Your task to perform on an android device: uninstall "Spotify" Image 0: 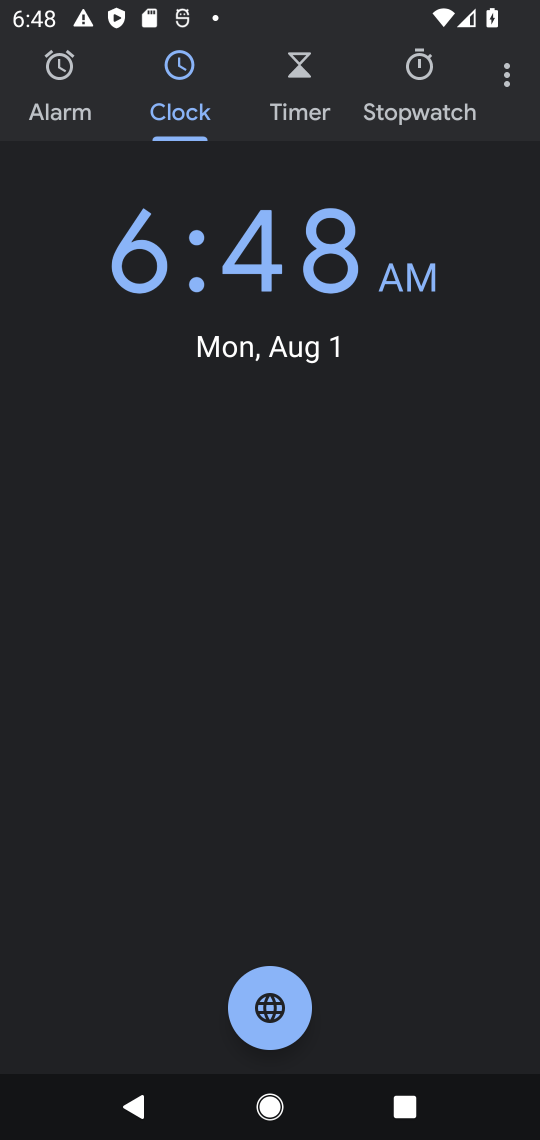
Step 0: press back button
Your task to perform on an android device: uninstall "Spotify" Image 1: 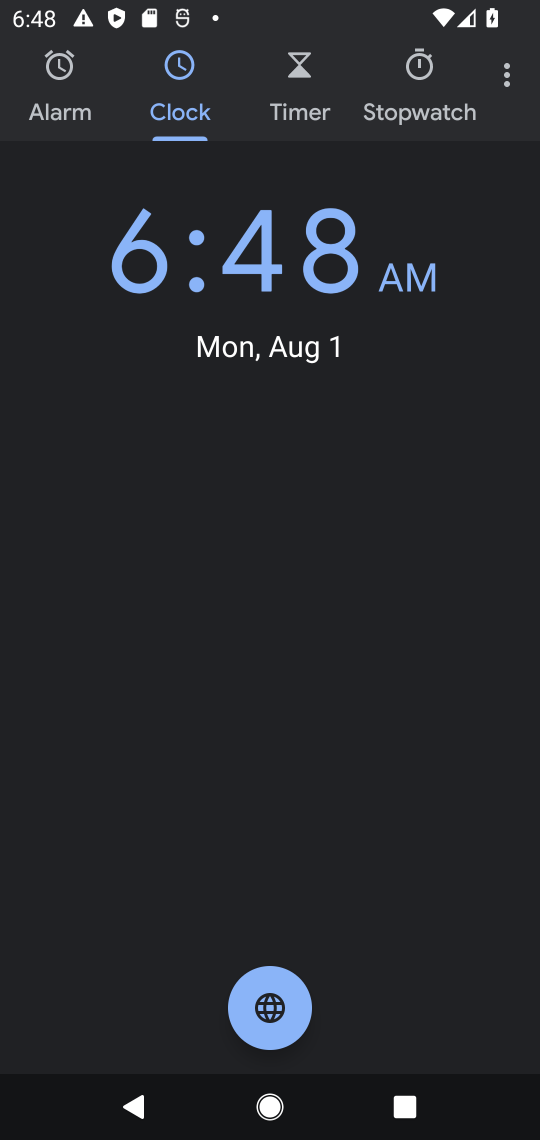
Step 1: press back button
Your task to perform on an android device: uninstall "Spotify" Image 2: 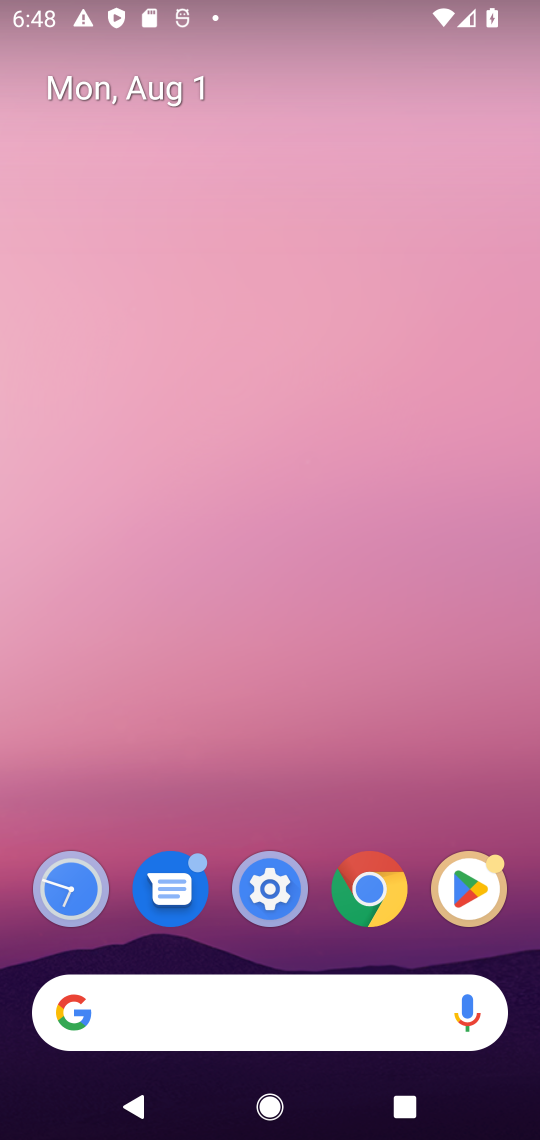
Step 2: press back button
Your task to perform on an android device: uninstall "Spotify" Image 3: 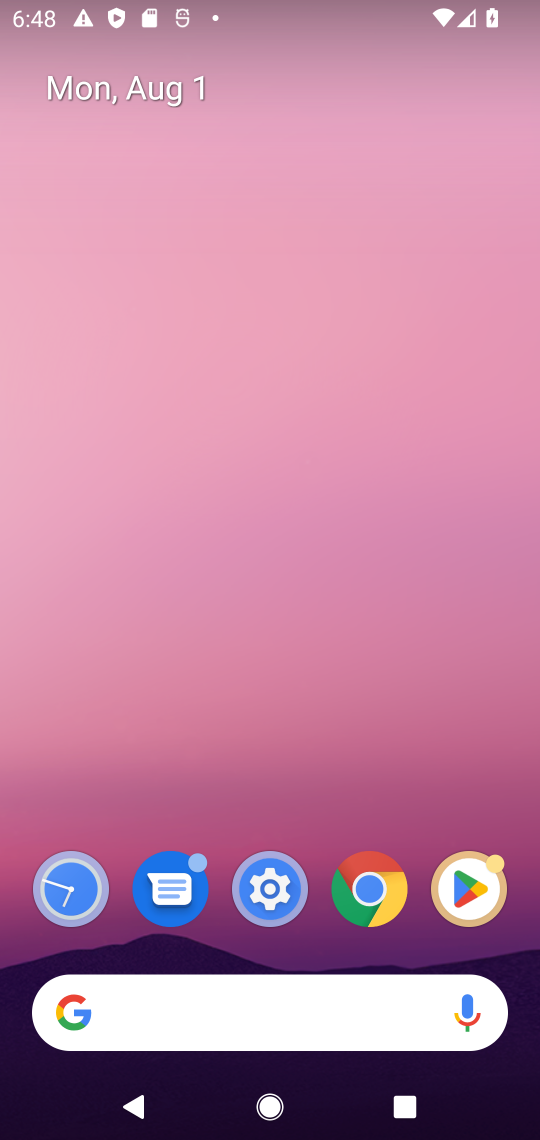
Step 3: drag from (242, 38) to (217, 277)
Your task to perform on an android device: uninstall "Spotify" Image 4: 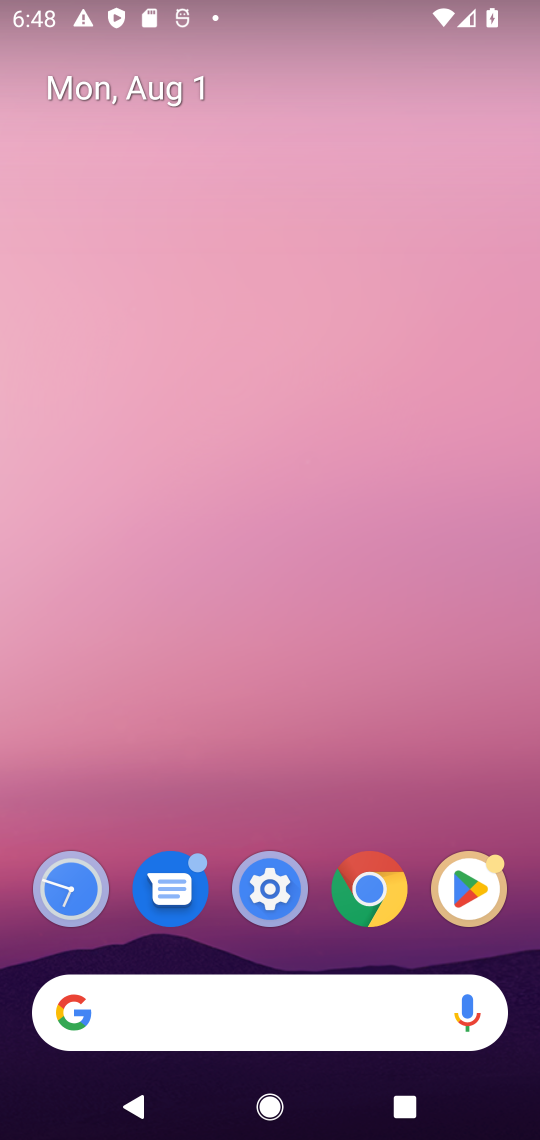
Step 4: drag from (336, 865) to (195, 127)
Your task to perform on an android device: uninstall "Spotify" Image 5: 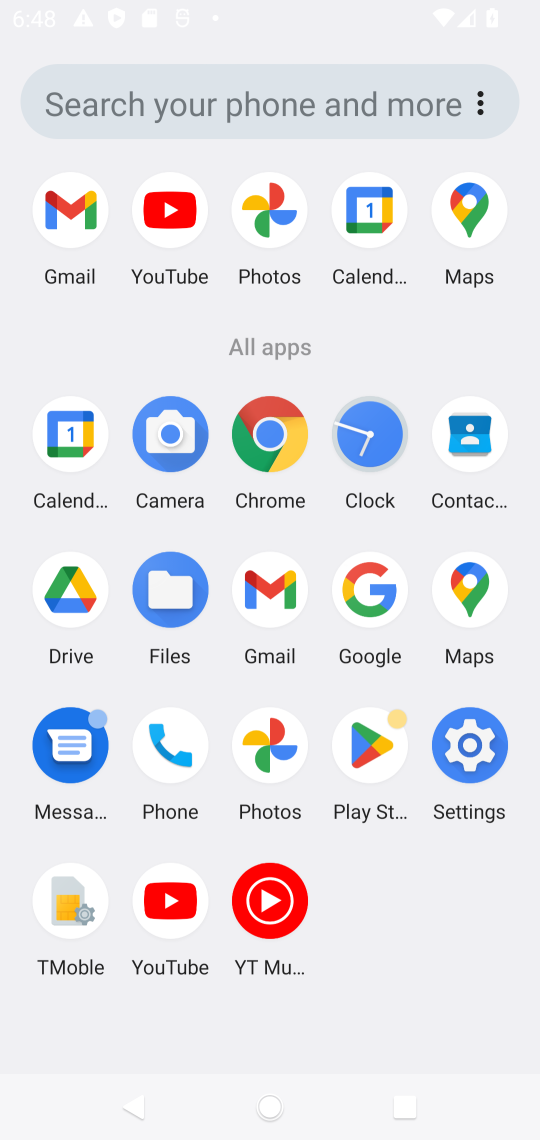
Step 5: drag from (241, 702) to (158, 0)
Your task to perform on an android device: uninstall "Spotify" Image 6: 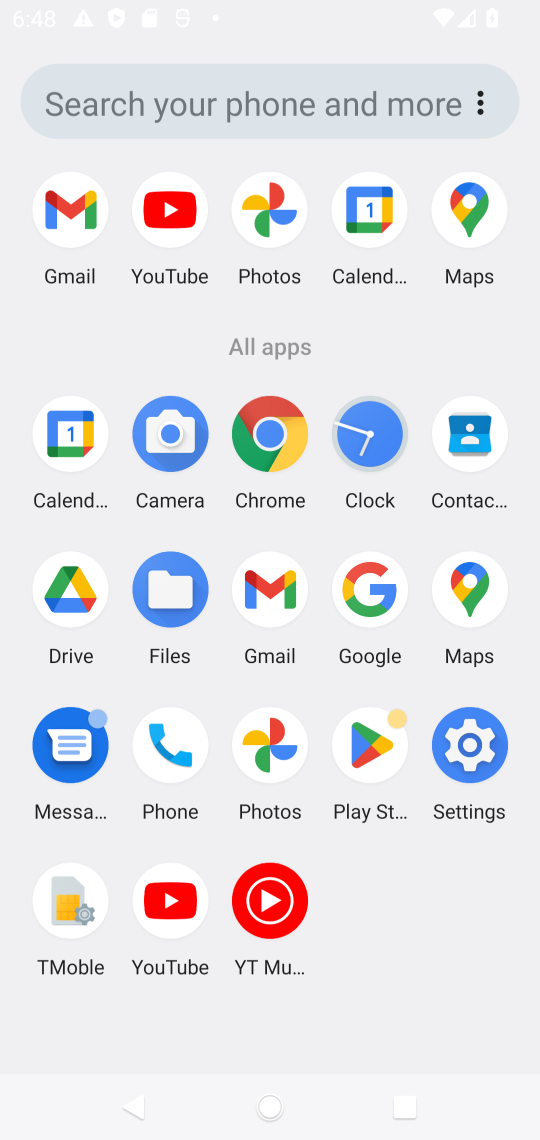
Step 6: drag from (281, 843) to (186, 88)
Your task to perform on an android device: uninstall "Spotify" Image 7: 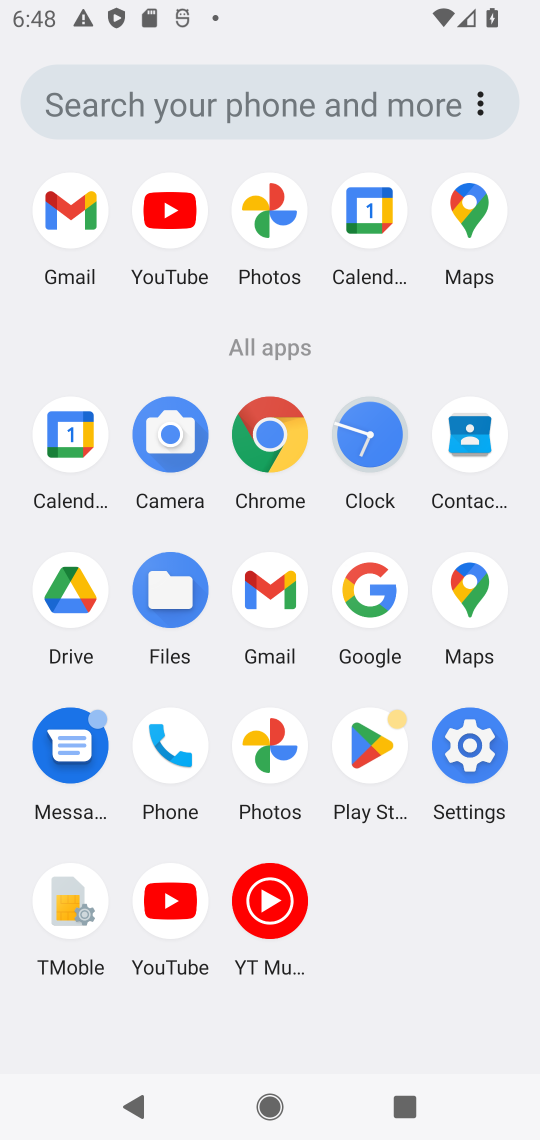
Step 7: click (358, 755)
Your task to perform on an android device: uninstall "Spotify" Image 8: 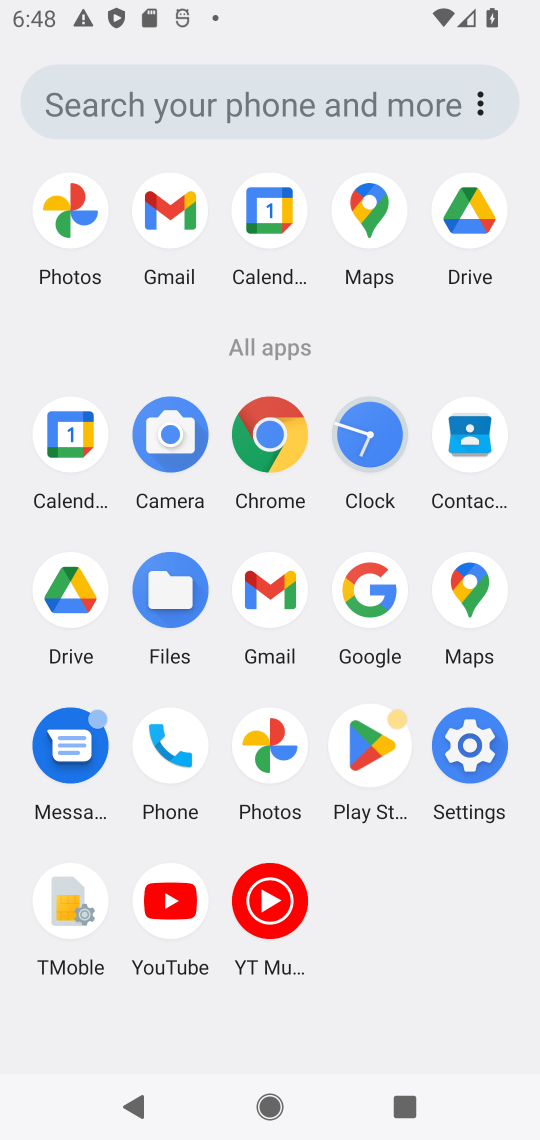
Step 8: click (358, 751)
Your task to perform on an android device: uninstall "Spotify" Image 9: 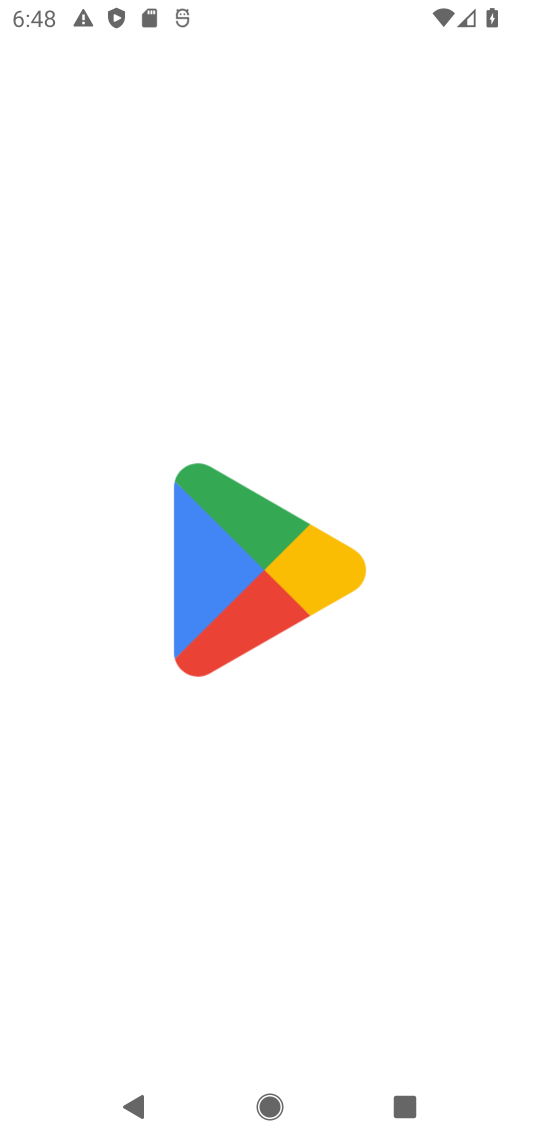
Step 9: click (368, 741)
Your task to perform on an android device: uninstall "Spotify" Image 10: 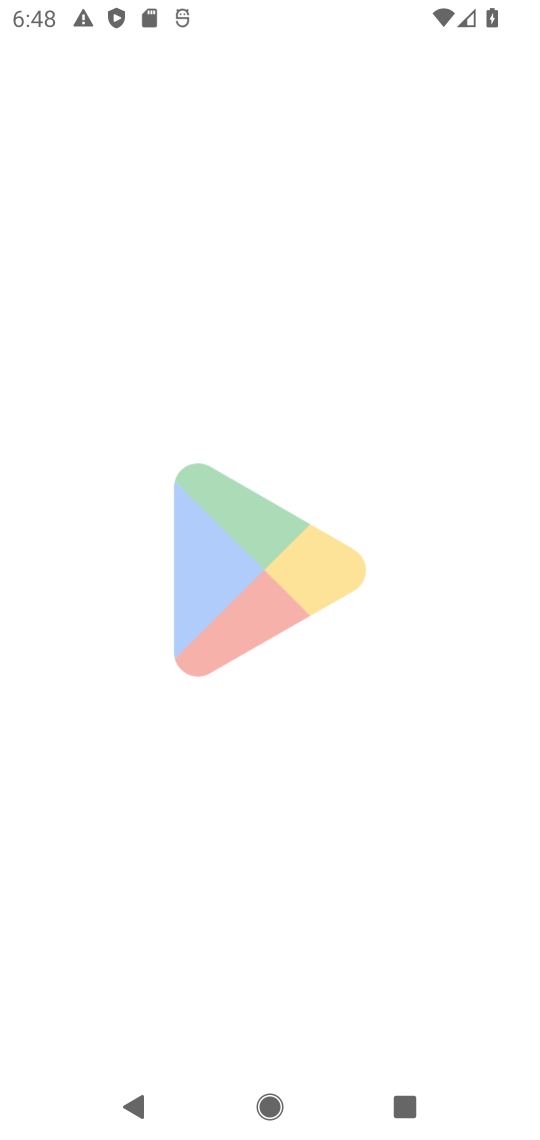
Step 10: click (369, 742)
Your task to perform on an android device: uninstall "Spotify" Image 11: 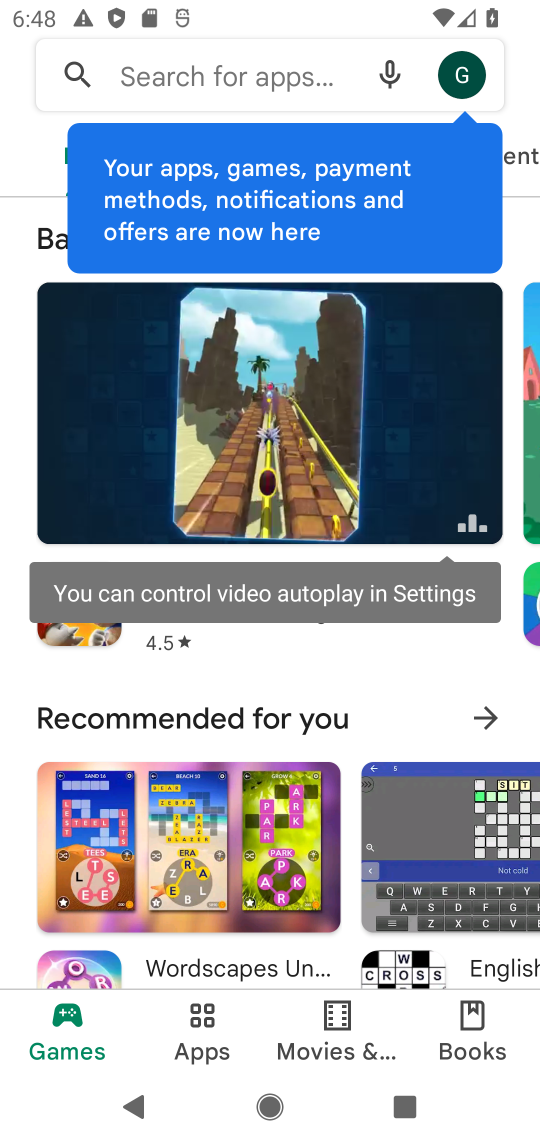
Step 11: click (167, 74)
Your task to perform on an android device: uninstall "Spotify" Image 12: 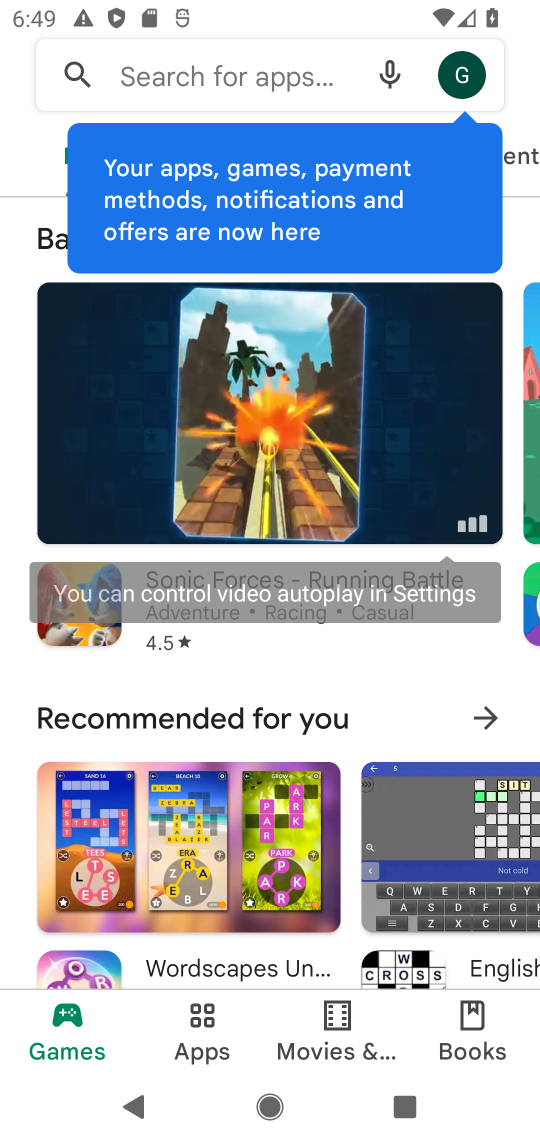
Step 12: click (166, 73)
Your task to perform on an android device: uninstall "Spotify" Image 13: 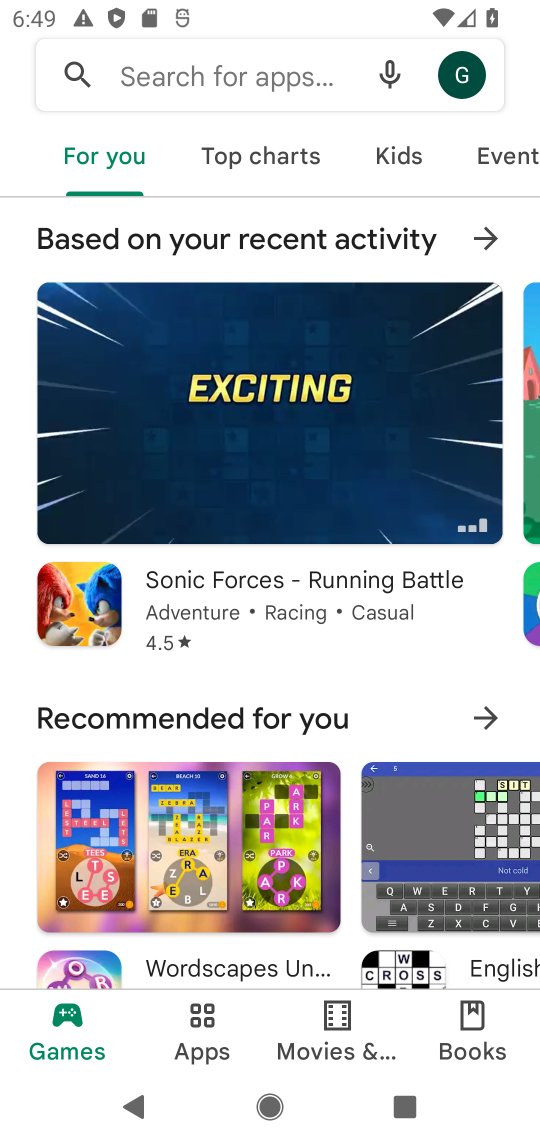
Step 13: click (166, 73)
Your task to perform on an android device: uninstall "Spotify" Image 14: 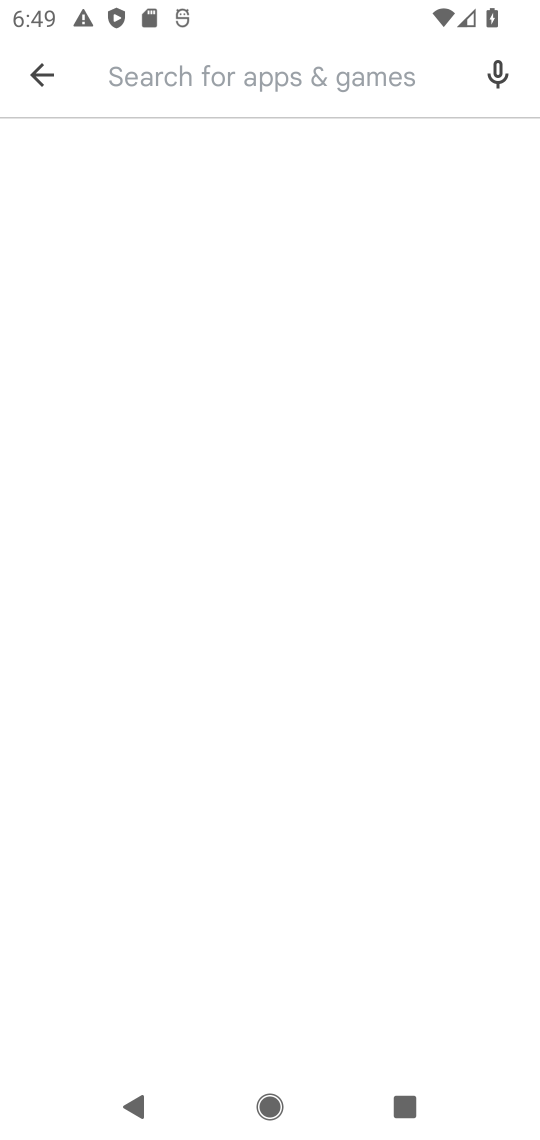
Step 14: click (180, 83)
Your task to perform on an android device: uninstall "Spotify" Image 15: 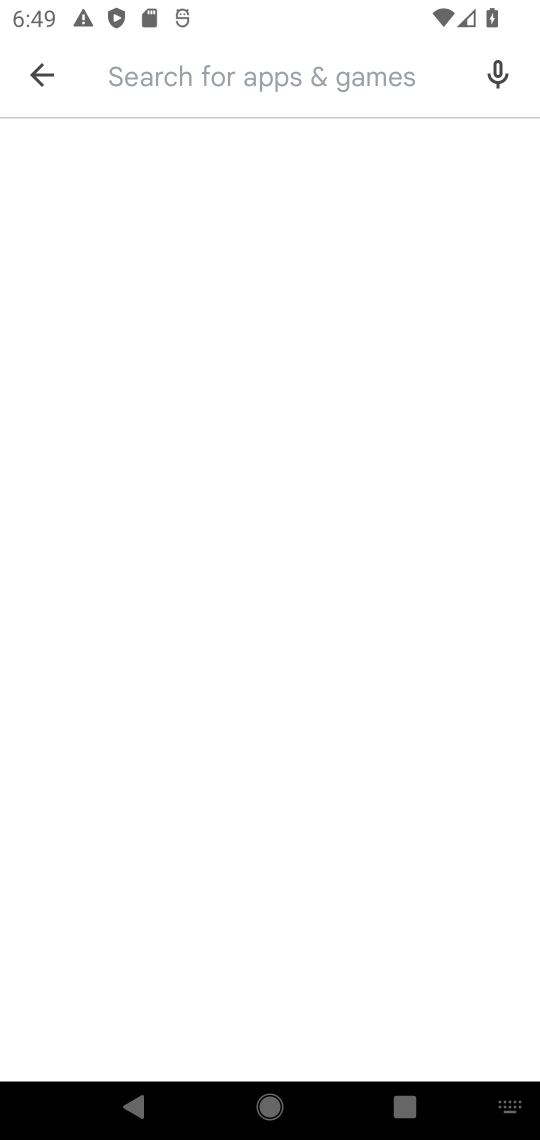
Step 15: click (180, 83)
Your task to perform on an android device: uninstall "Spotify" Image 16: 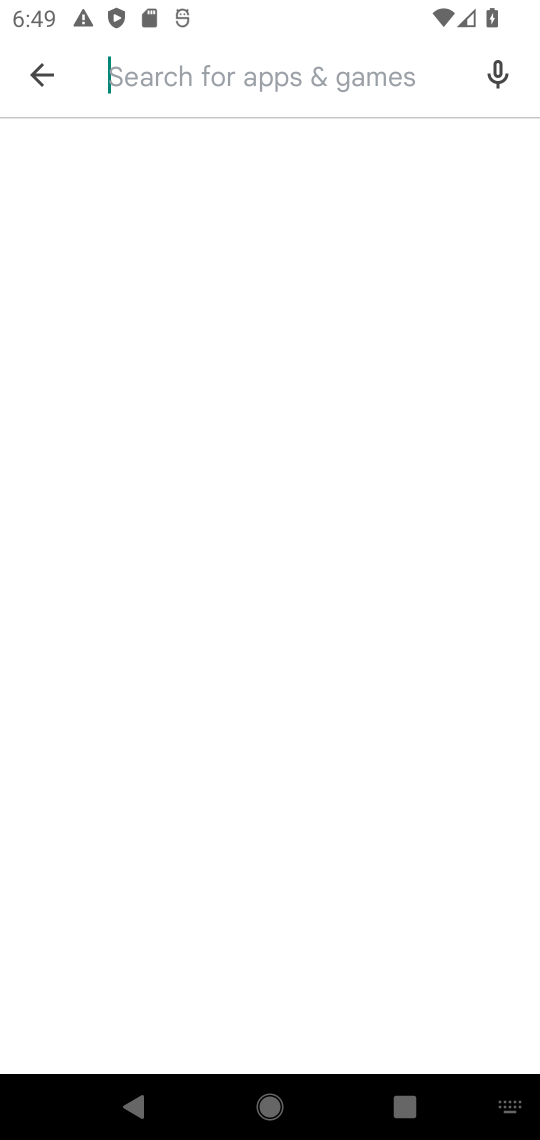
Step 16: click (180, 83)
Your task to perform on an android device: uninstall "Spotify" Image 17: 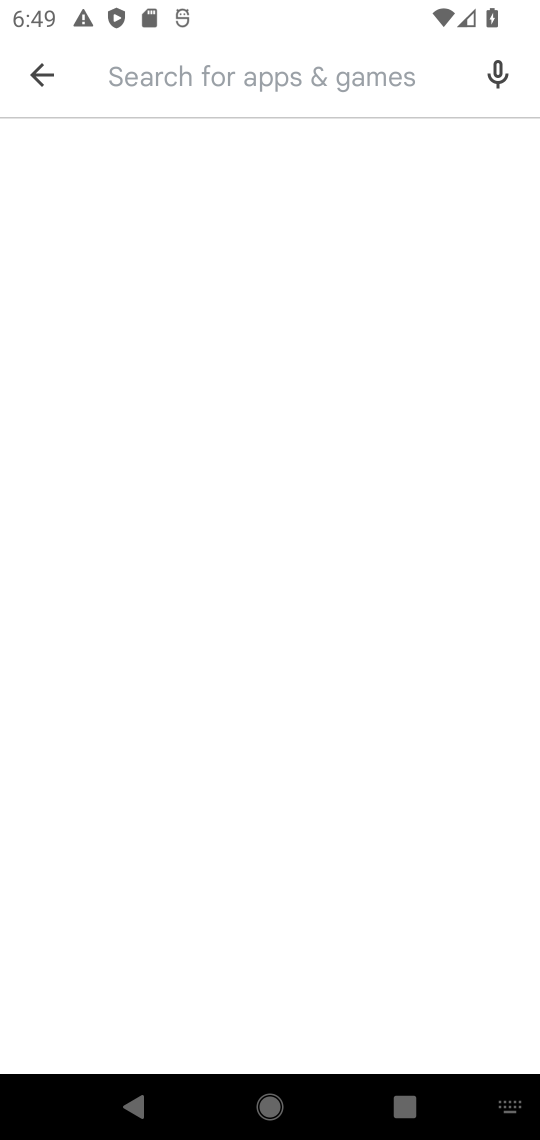
Step 17: click (182, 81)
Your task to perform on an android device: uninstall "Spotify" Image 18: 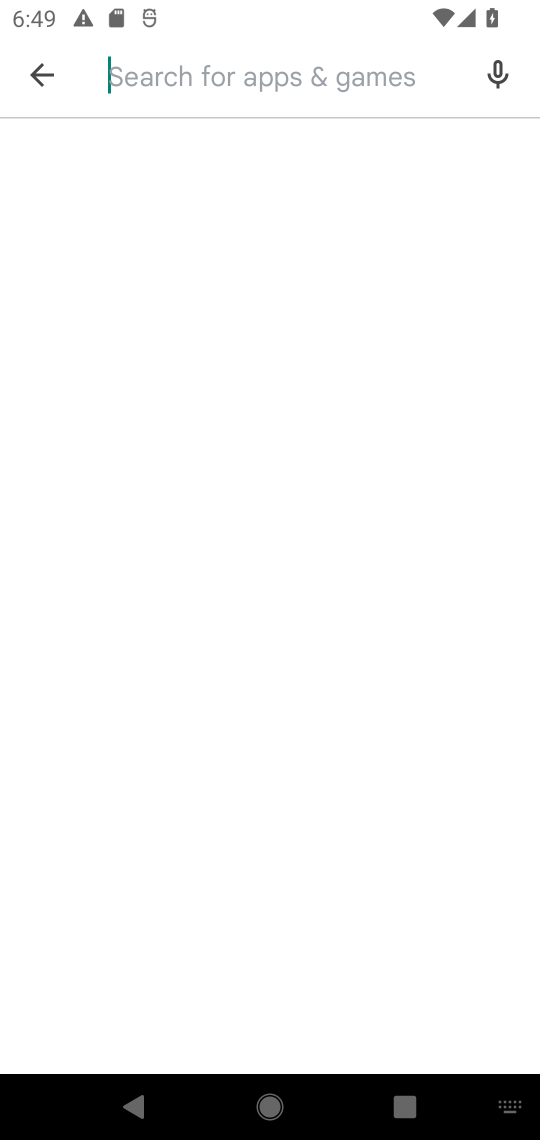
Step 18: type "Spotify"
Your task to perform on an android device: uninstall "Spotify" Image 19: 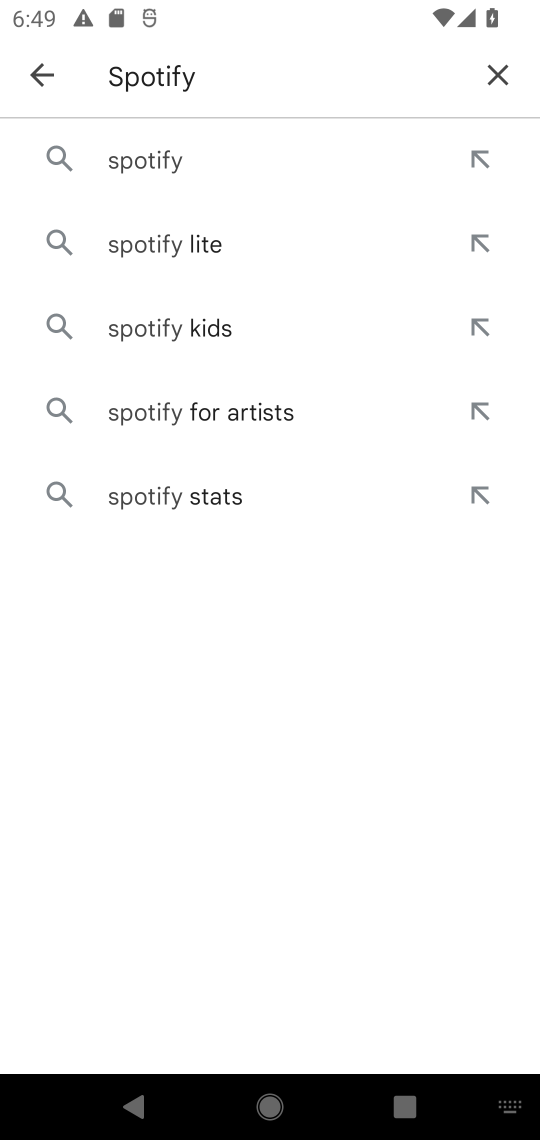
Step 19: click (146, 153)
Your task to perform on an android device: uninstall "Spotify" Image 20: 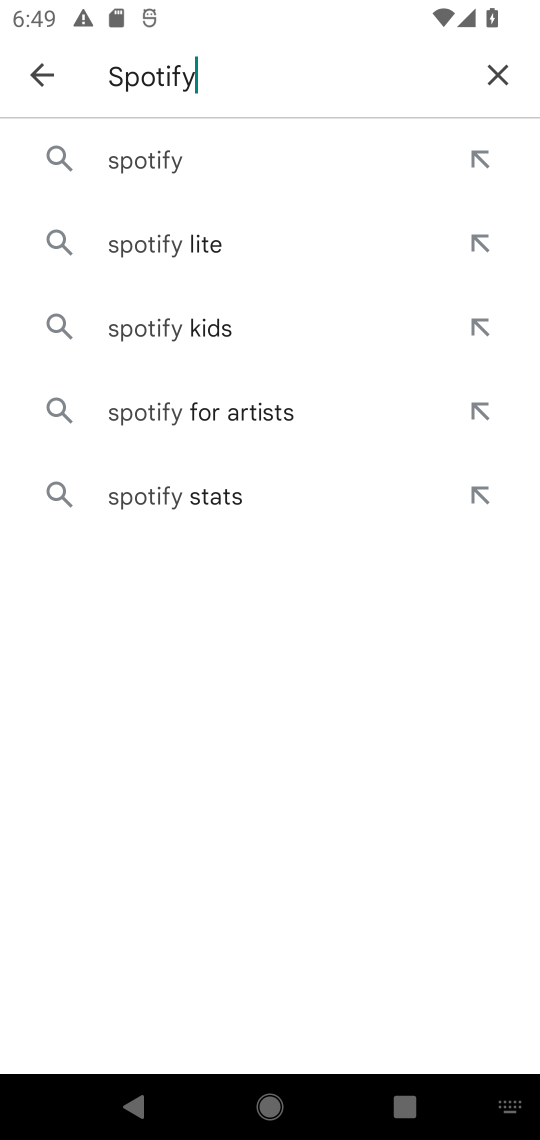
Step 20: click (146, 153)
Your task to perform on an android device: uninstall "Spotify" Image 21: 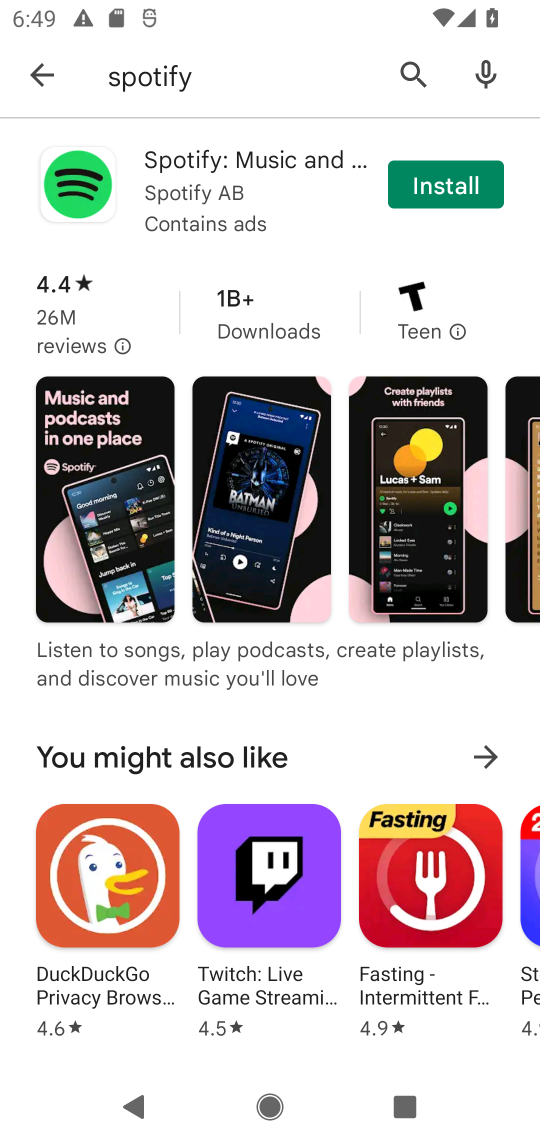
Step 21: click (460, 193)
Your task to perform on an android device: uninstall "Spotify" Image 22: 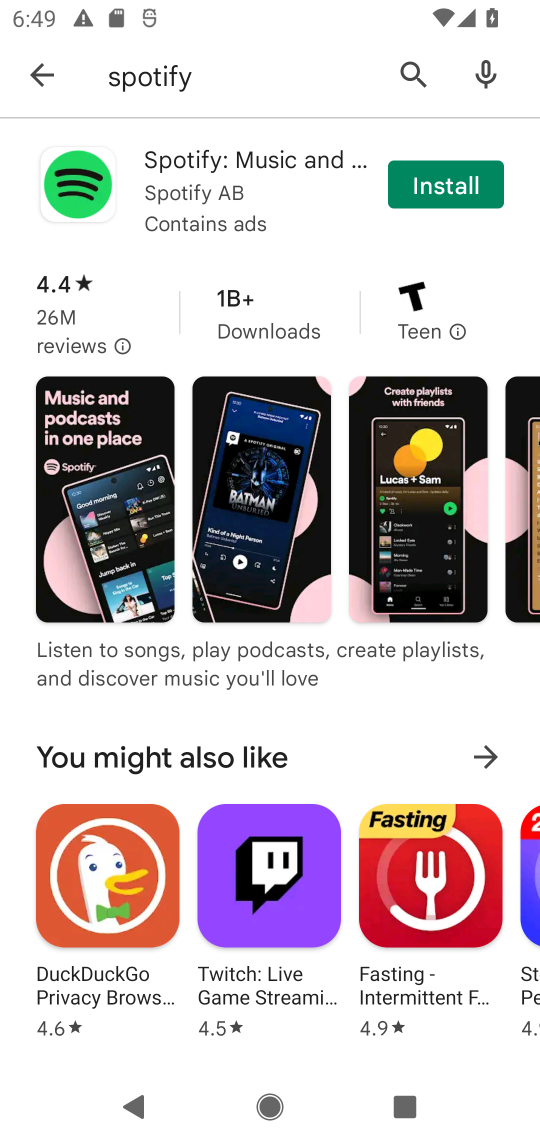
Step 22: click (457, 204)
Your task to perform on an android device: uninstall "Spotify" Image 23: 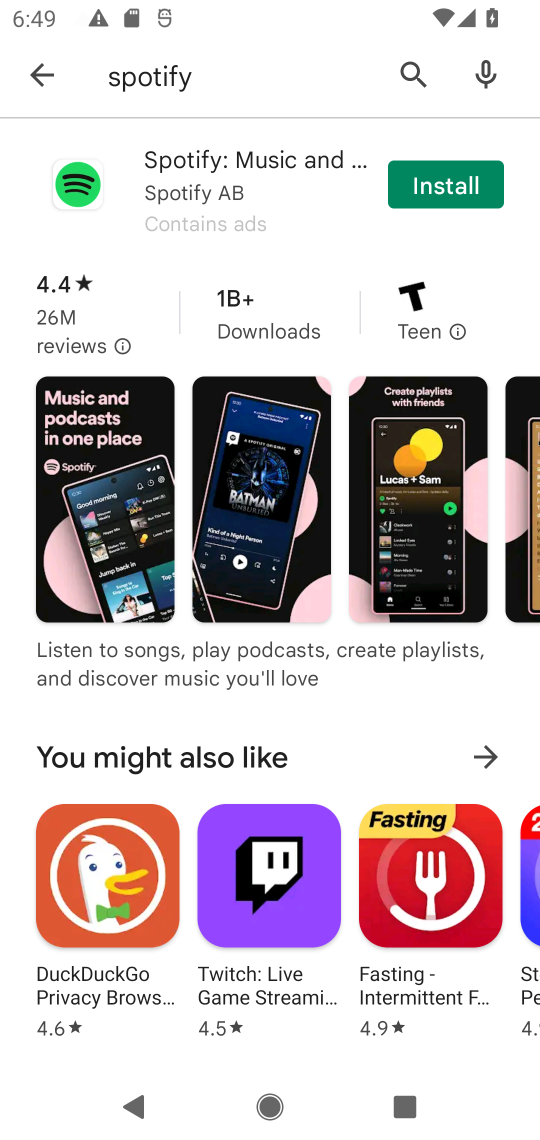
Step 23: click (426, 170)
Your task to perform on an android device: uninstall "Spotify" Image 24: 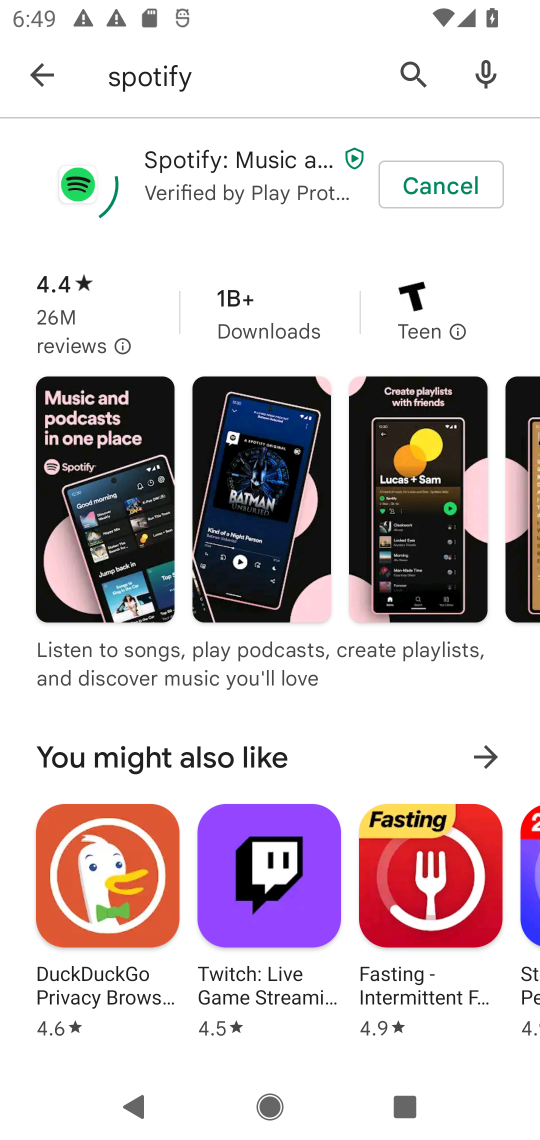
Step 24: task complete